Your task to perform on an android device: Toggle the flashlight Image 0: 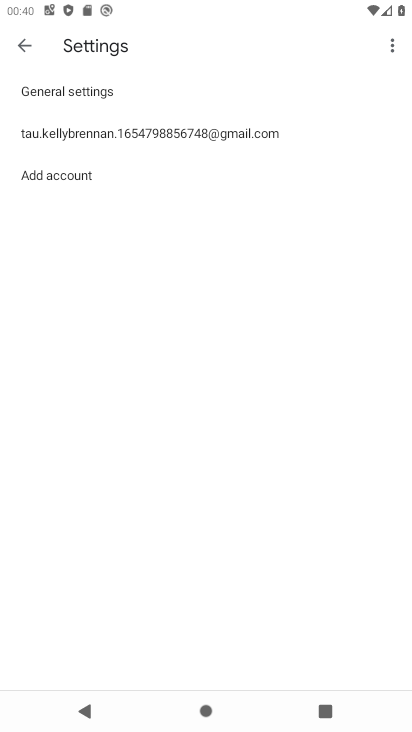
Step 0: press home button
Your task to perform on an android device: Toggle the flashlight Image 1: 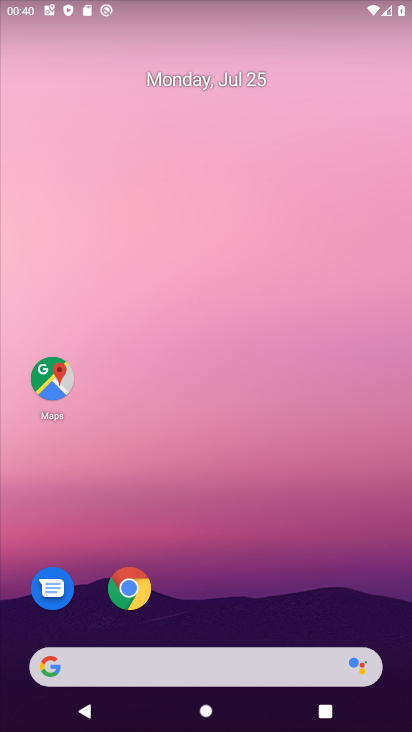
Step 1: drag from (223, 560) to (30, 0)
Your task to perform on an android device: Toggle the flashlight Image 2: 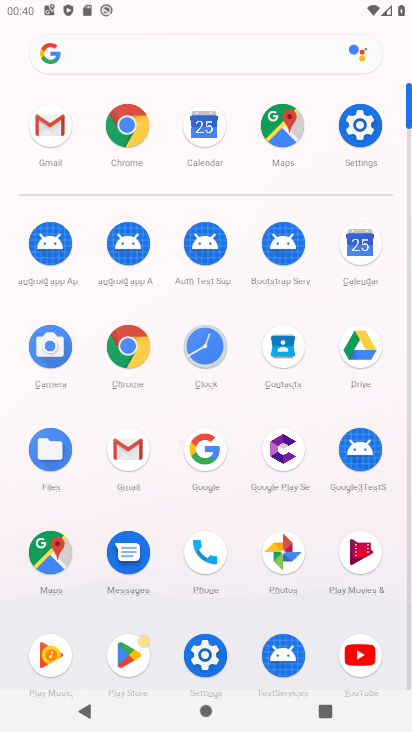
Step 2: click (369, 138)
Your task to perform on an android device: Toggle the flashlight Image 3: 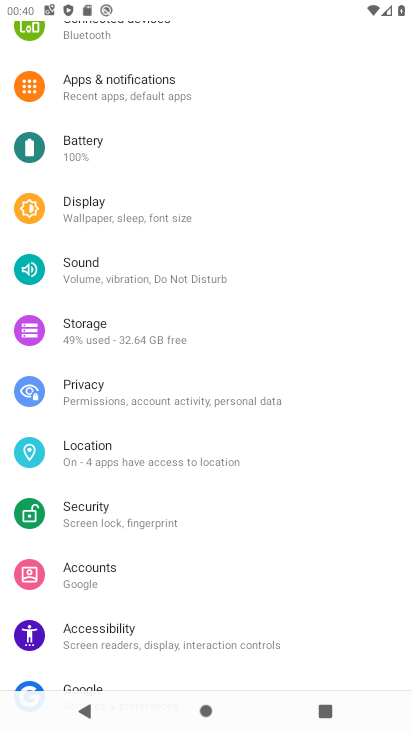
Step 3: drag from (272, 144) to (217, 693)
Your task to perform on an android device: Toggle the flashlight Image 4: 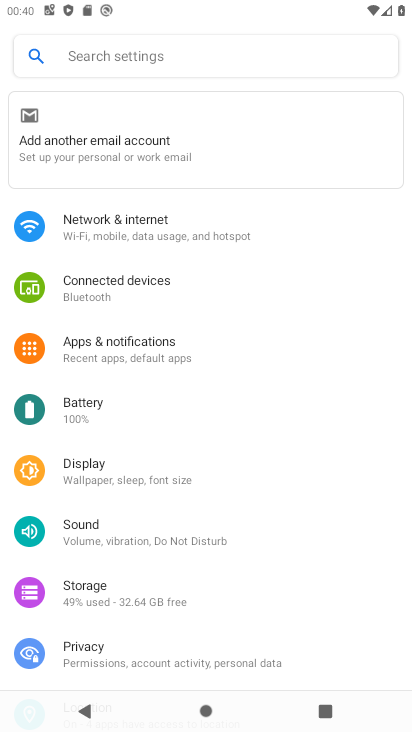
Step 4: click (190, 60)
Your task to perform on an android device: Toggle the flashlight Image 5: 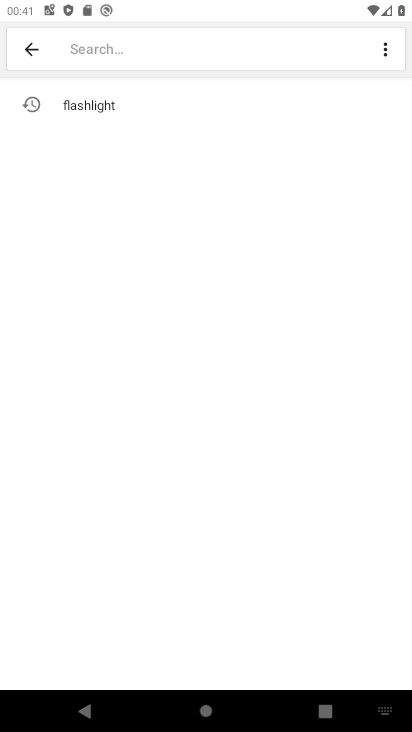
Step 5: type "flashlight"
Your task to perform on an android device: Toggle the flashlight Image 6: 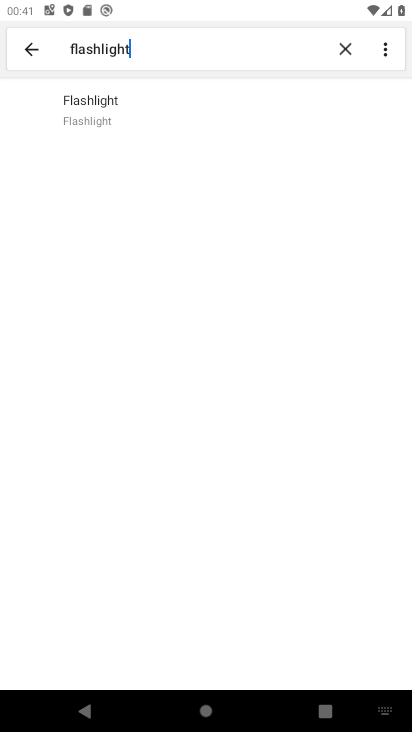
Step 6: click (105, 114)
Your task to perform on an android device: Toggle the flashlight Image 7: 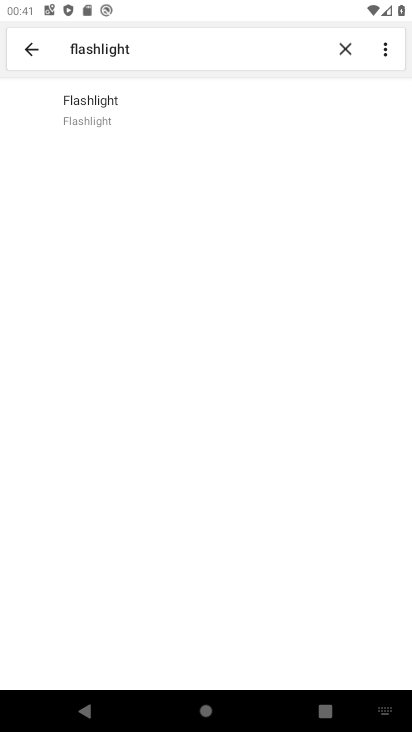
Step 7: click (111, 114)
Your task to perform on an android device: Toggle the flashlight Image 8: 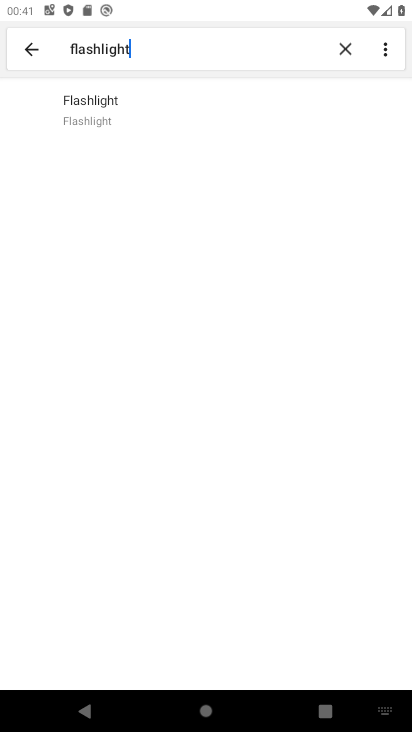
Step 8: task complete